Your task to perform on an android device: Search for seafood restaurants on Google Maps Image 0: 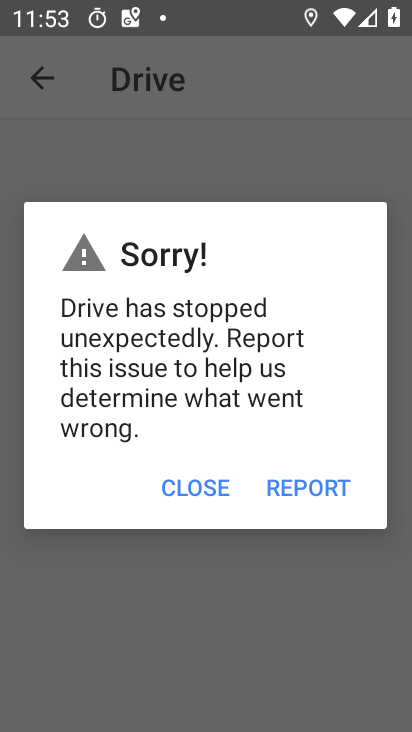
Step 0: press home button
Your task to perform on an android device: Search for seafood restaurants on Google Maps Image 1: 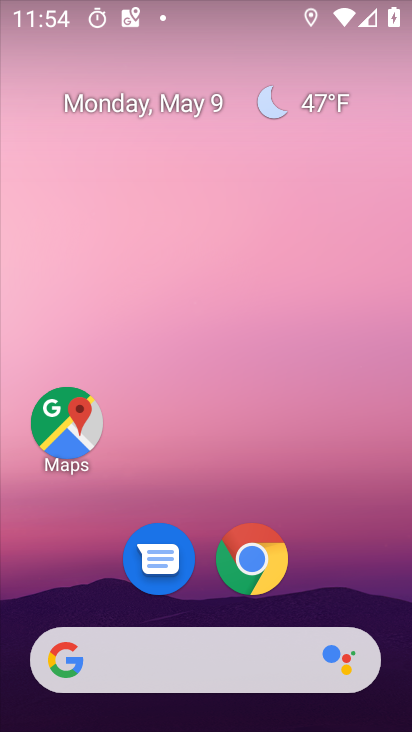
Step 1: click (61, 421)
Your task to perform on an android device: Search for seafood restaurants on Google Maps Image 2: 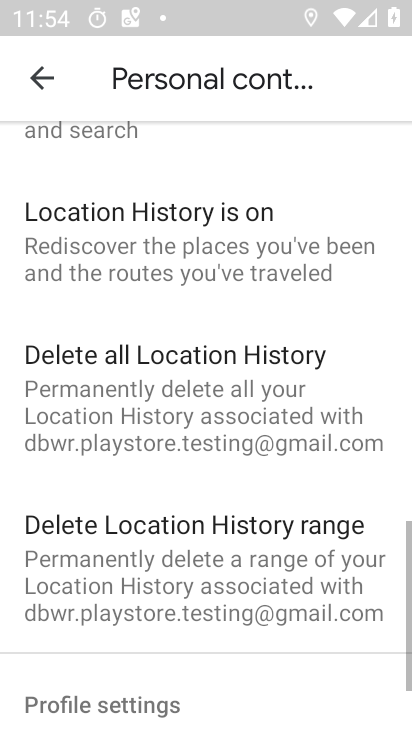
Step 2: click (29, 90)
Your task to perform on an android device: Search for seafood restaurants on Google Maps Image 3: 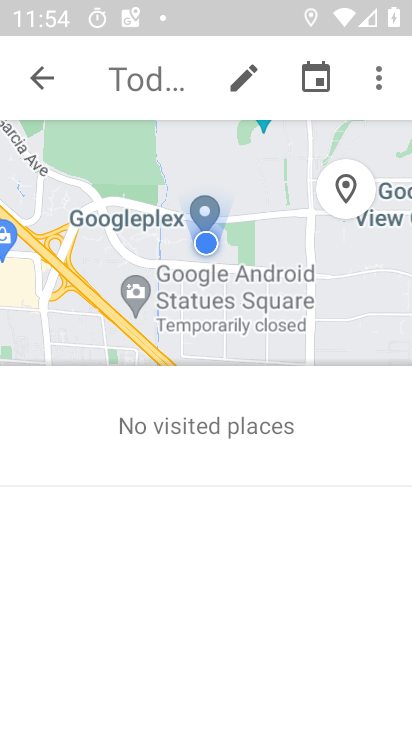
Step 3: click (64, 84)
Your task to perform on an android device: Search for seafood restaurants on Google Maps Image 4: 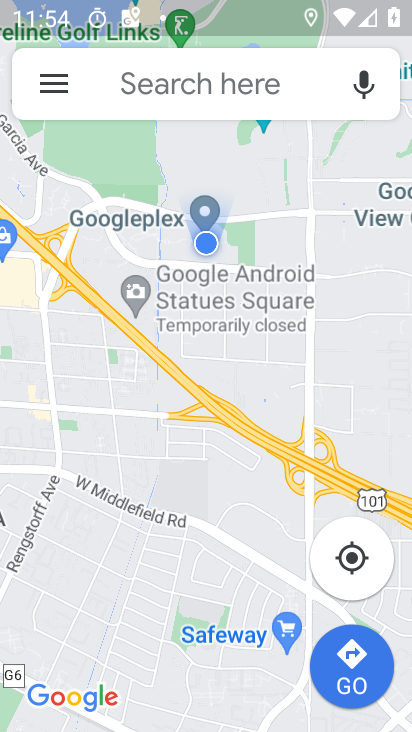
Step 4: click (168, 81)
Your task to perform on an android device: Search for seafood restaurants on Google Maps Image 5: 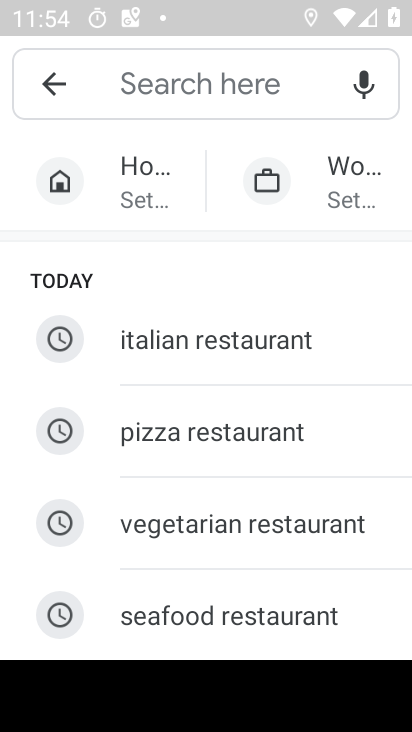
Step 5: type "seafood restaurants "
Your task to perform on an android device: Search for seafood restaurants on Google Maps Image 6: 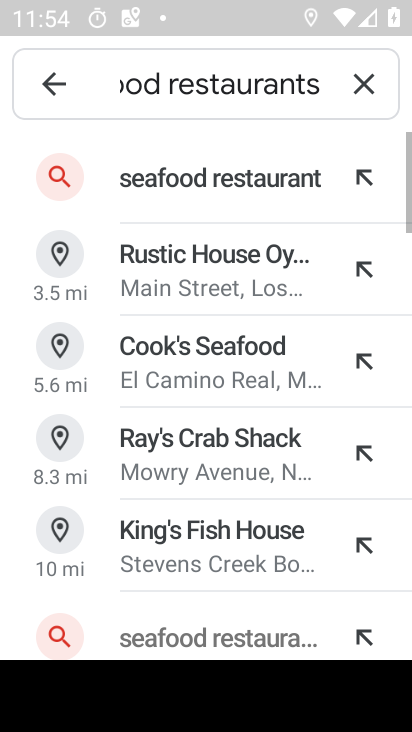
Step 6: click (193, 177)
Your task to perform on an android device: Search for seafood restaurants on Google Maps Image 7: 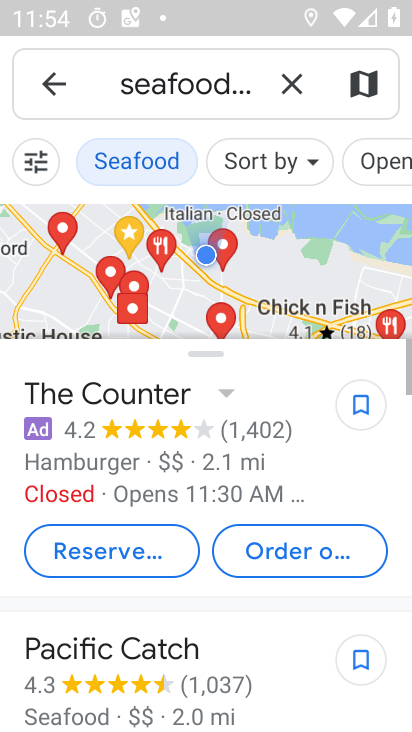
Step 7: task complete